Your task to perform on an android device: Open display settings Image 0: 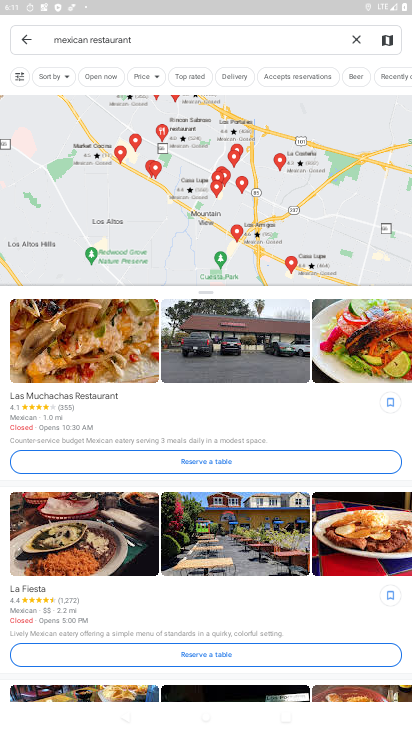
Step 0: press home button
Your task to perform on an android device: Open display settings Image 1: 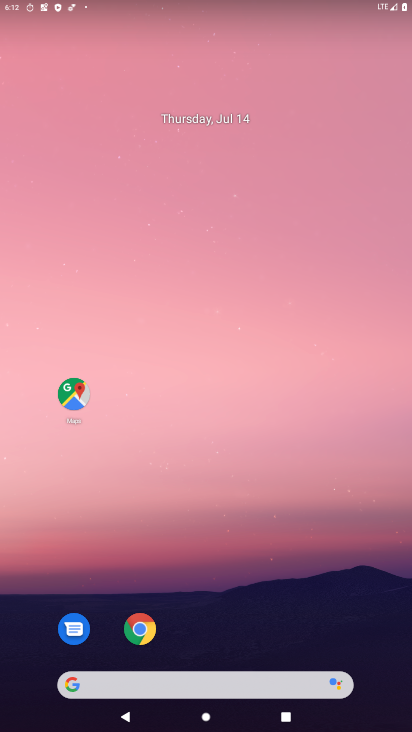
Step 1: drag from (246, 673) to (231, 172)
Your task to perform on an android device: Open display settings Image 2: 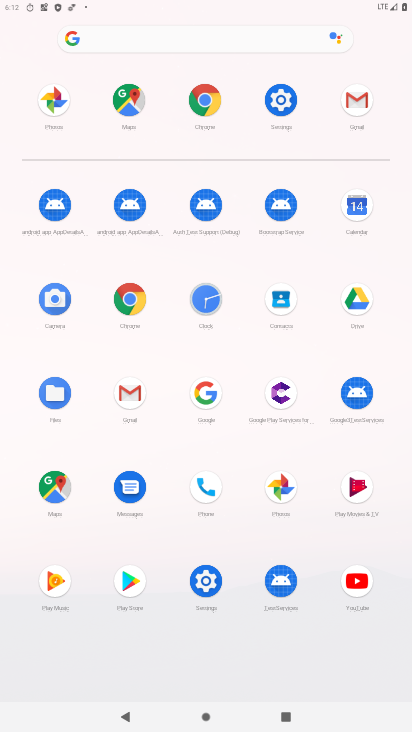
Step 2: click (293, 103)
Your task to perform on an android device: Open display settings Image 3: 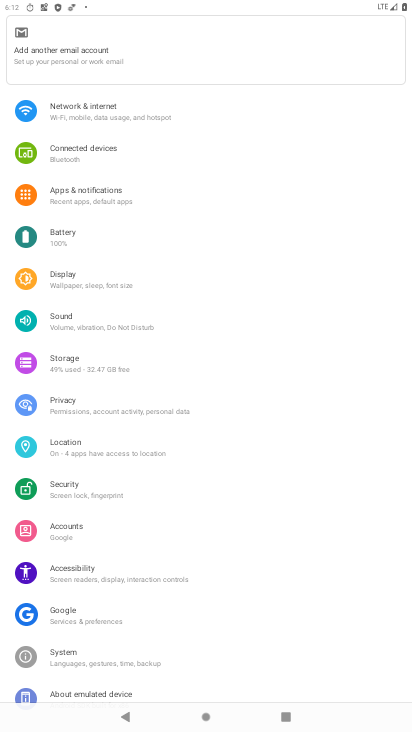
Step 3: click (79, 273)
Your task to perform on an android device: Open display settings Image 4: 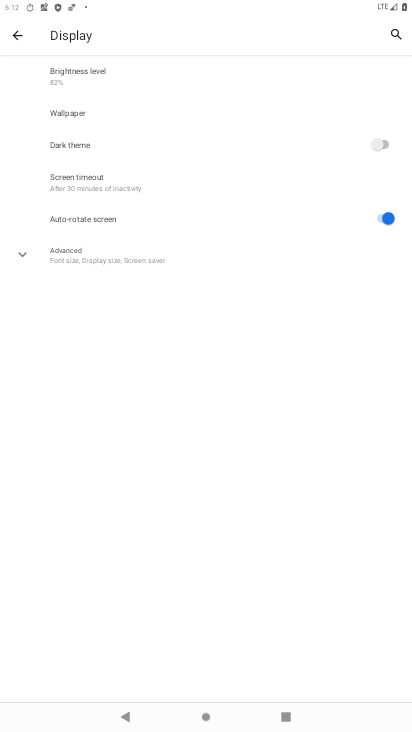
Step 4: task complete